Your task to perform on an android device: Go to Maps Image 0: 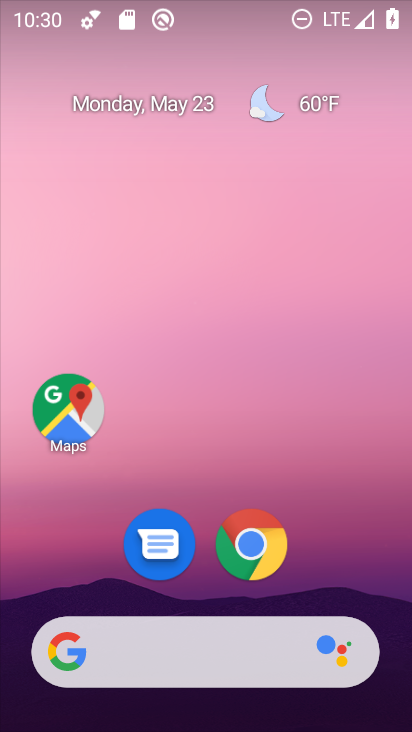
Step 0: click (60, 385)
Your task to perform on an android device: Go to Maps Image 1: 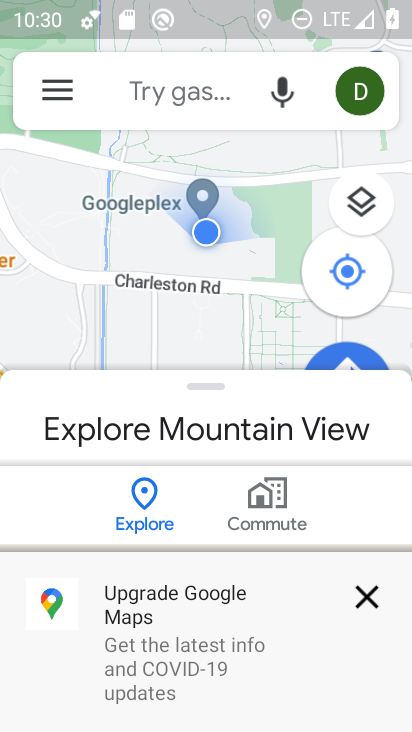
Step 1: drag from (206, 389) to (186, 604)
Your task to perform on an android device: Go to Maps Image 2: 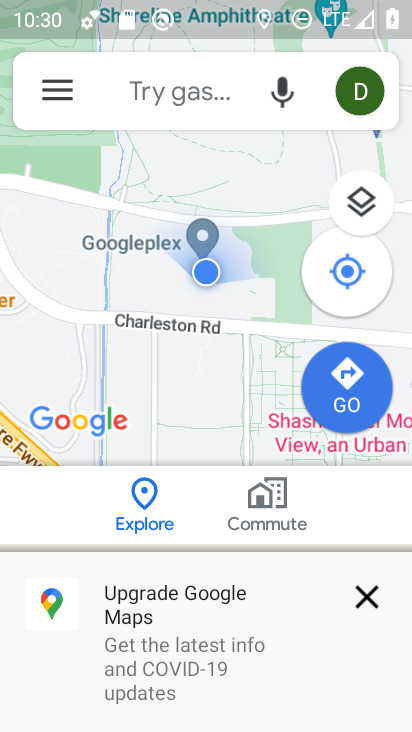
Step 2: click (372, 584)
Your task to perform on an android device: Go to Maps Image 3: 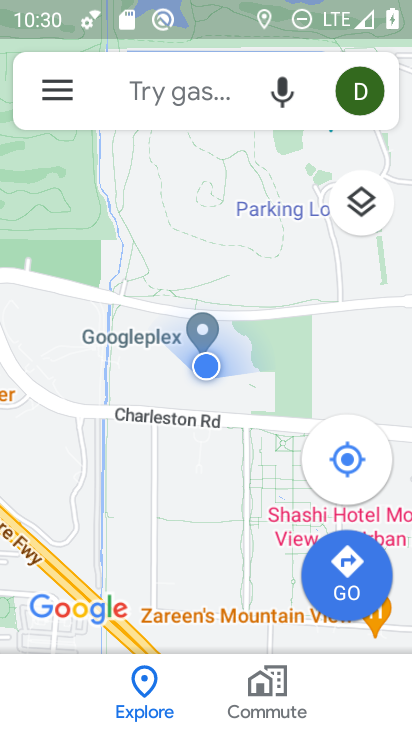
Step 3: task complete